Your task to perform on an android device: open a bookmark in the chrome app Image 0: 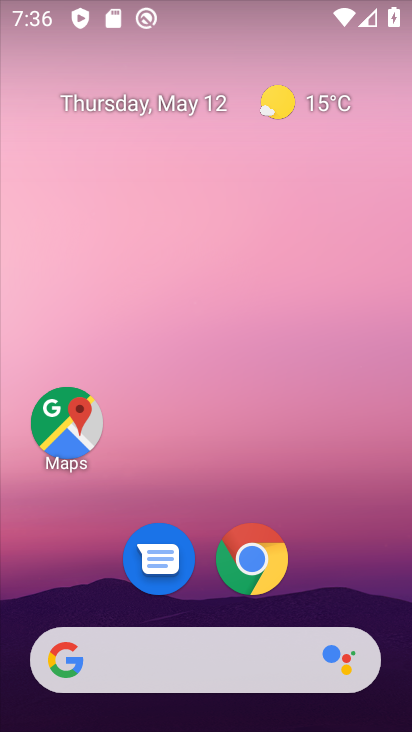
Step 0: drag from (198, 612) to (240, 171)
Your task to perform on an android device: open a bookmark in the chrome app Image 1: 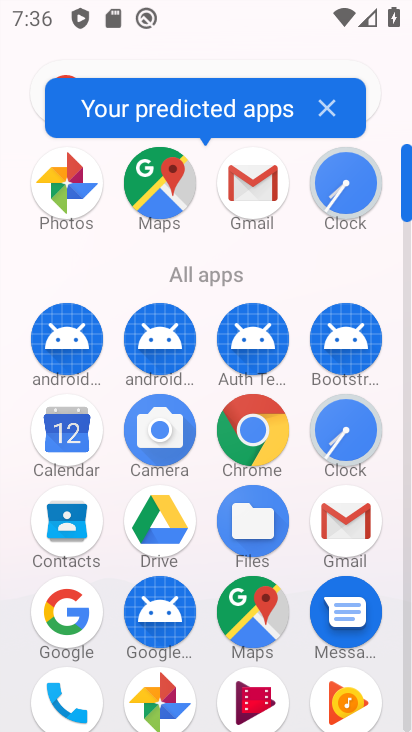
Step 1: click (355, 512)
Your task to perform on an android device: open a bookmark in the chrome app Image 2: 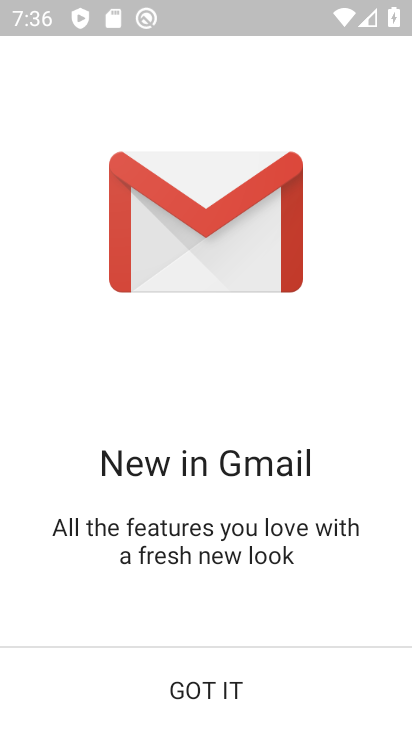
Step 2: click (220, 693)
Your task to perform on an android device: open a bookmark in the chrome app Image 3: 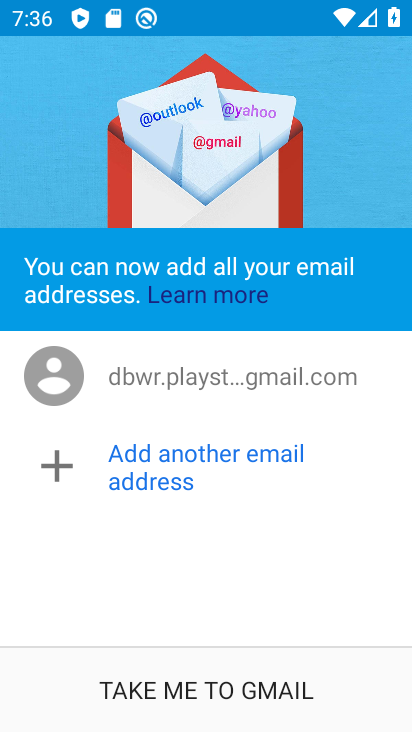
Step 3: press home button
Your task to perform on an android device: open a bookmark in the chrome app Image 4: 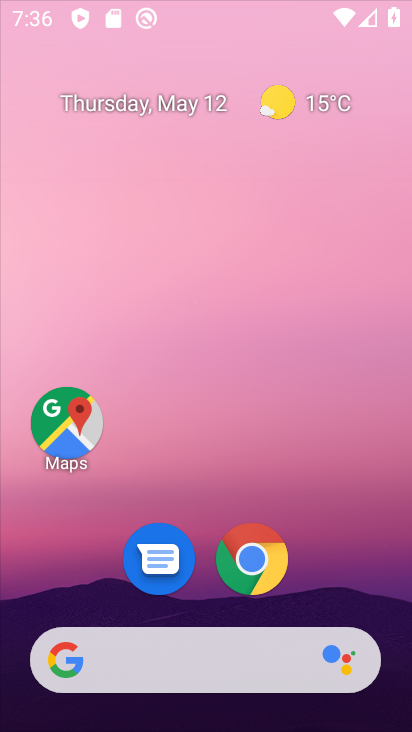
Step 4: drag from (186, 623) to (288, 42)
Your task to perform on an android device: open a bookmark in the chrome app Image 5: 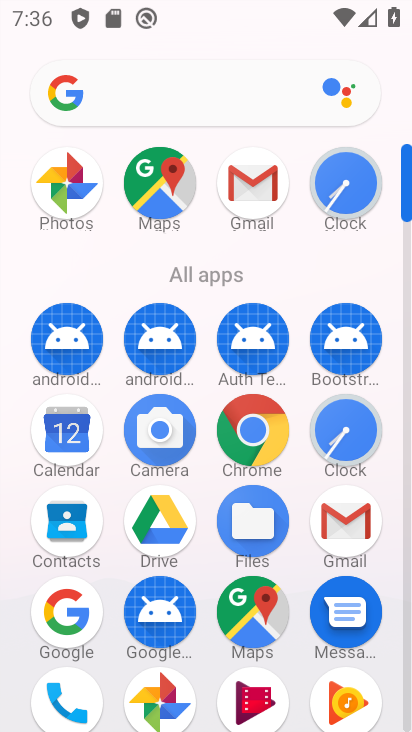
Step 5: click (251, 429)
Your task to perform on an android device: open a bookmark in the chrome app Image 6: 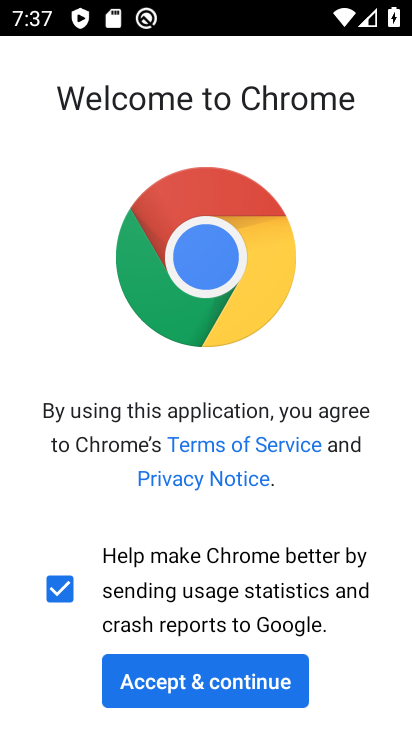
Step 6: click (195, 698)
Your task to perform on an android device: open a bookmark in the chrome app Image 7: 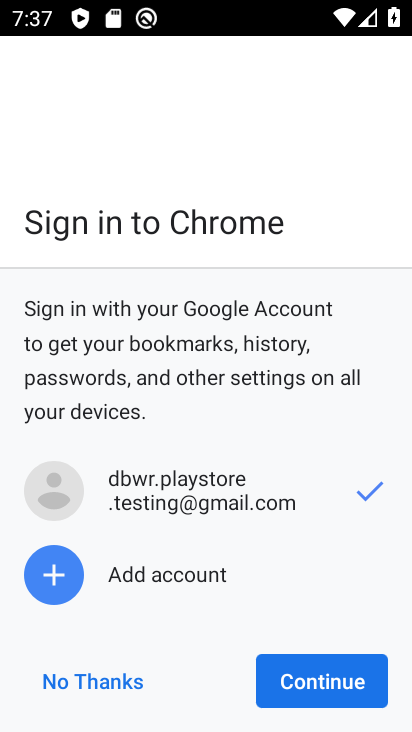
Step 7: click (93, 678)
Your task to perform on an android device: open a bookmark in the chrome app Image 8: 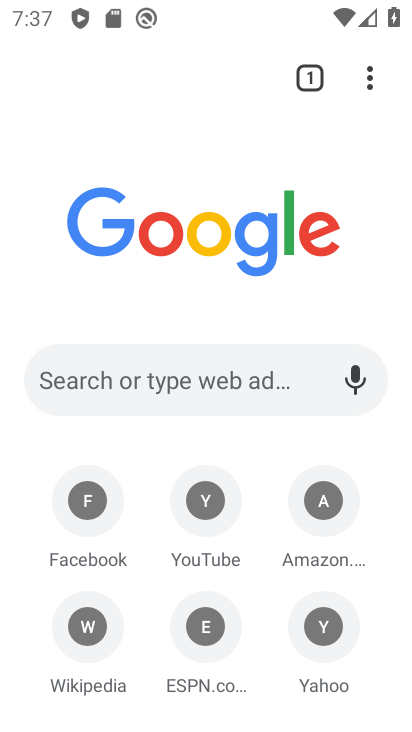
Step 8: click (362, 88)
Your task to perform on an android device: open a bookmark in the chrome app Image 9: 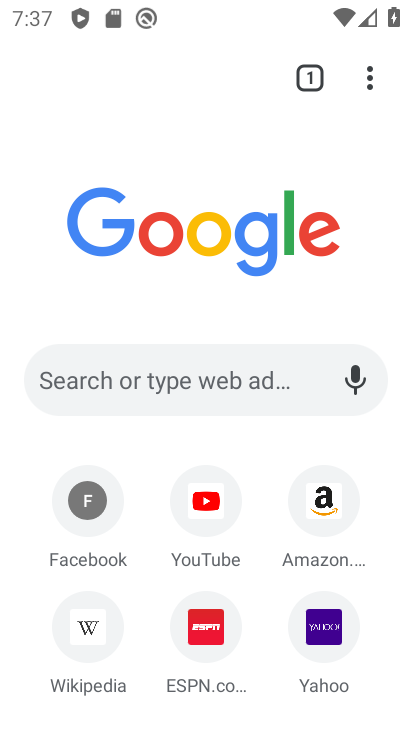
Step 9: click (368, 84)
Your task to perform on an android device: open a bookmark in the chrome app Image 10: 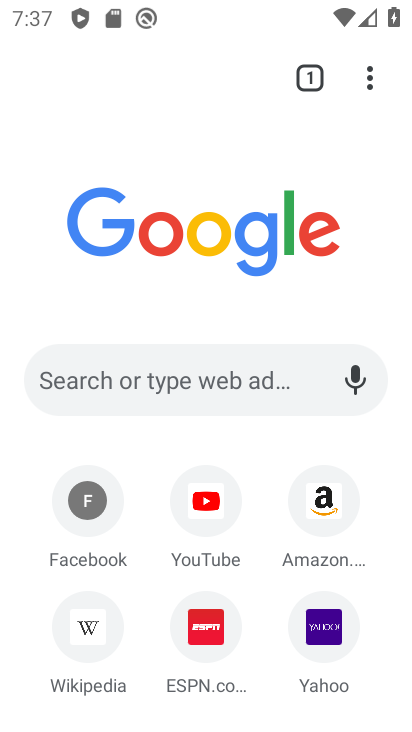
Step 10: click (369, 77)
Your task to perform on an android device: open a bookmark in the chrome app Image 11: 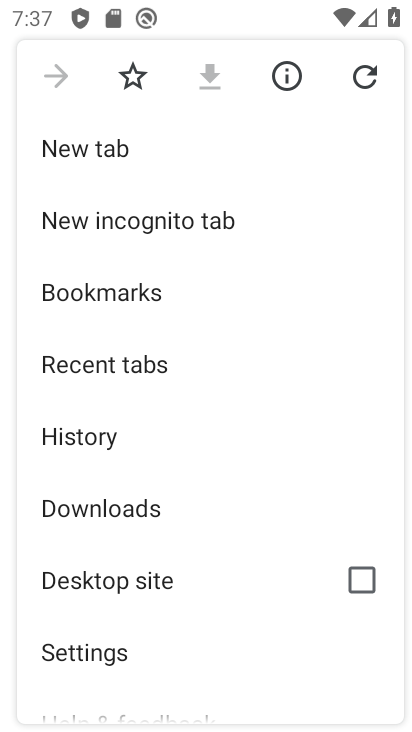
Step 11: click (145, 295)
Your task to perform on an android device: open a bookmark in the chrome app Image 12: 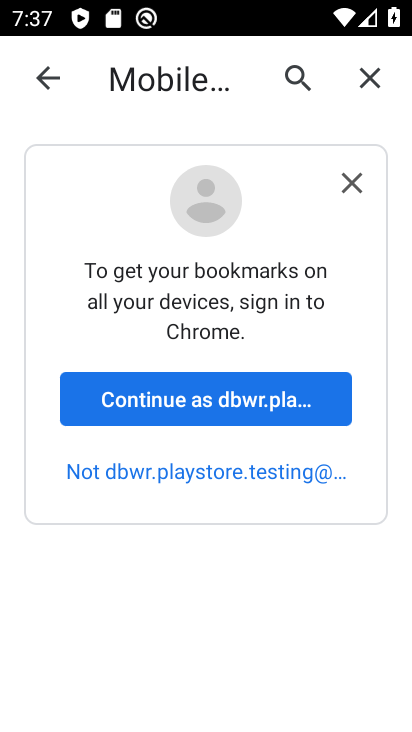
Step 12: task complete